Your task to perform on an android device: Clear all items from cart on walmart.com. Add "usb-c" to the cart on walmart.com Image 0: 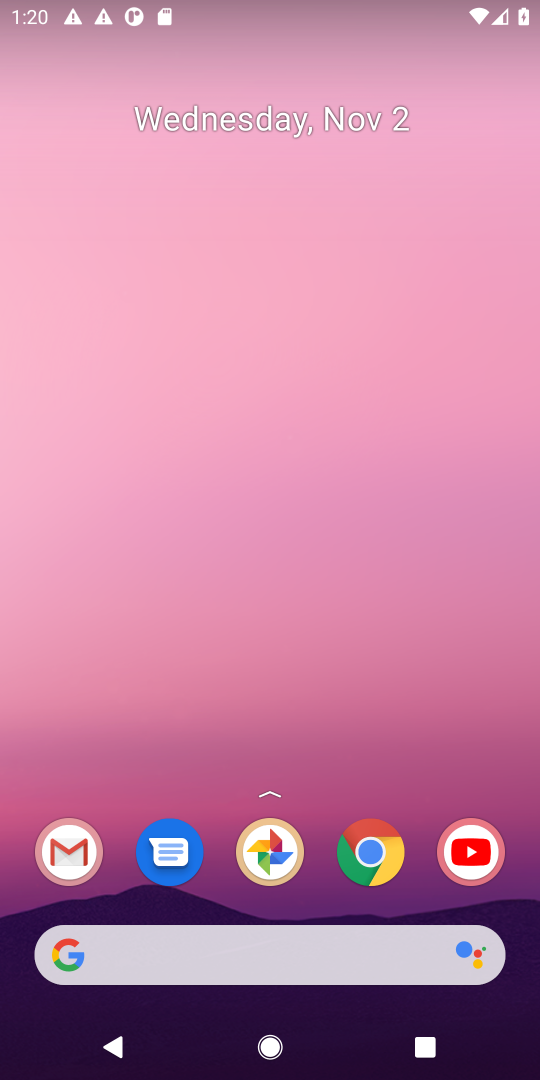
Step 0: click (64, 960)
Your task to perform on an android device: Clear all items from cart on walmart.com. Add "usb-c" to the cart on walmart.com Image 1: 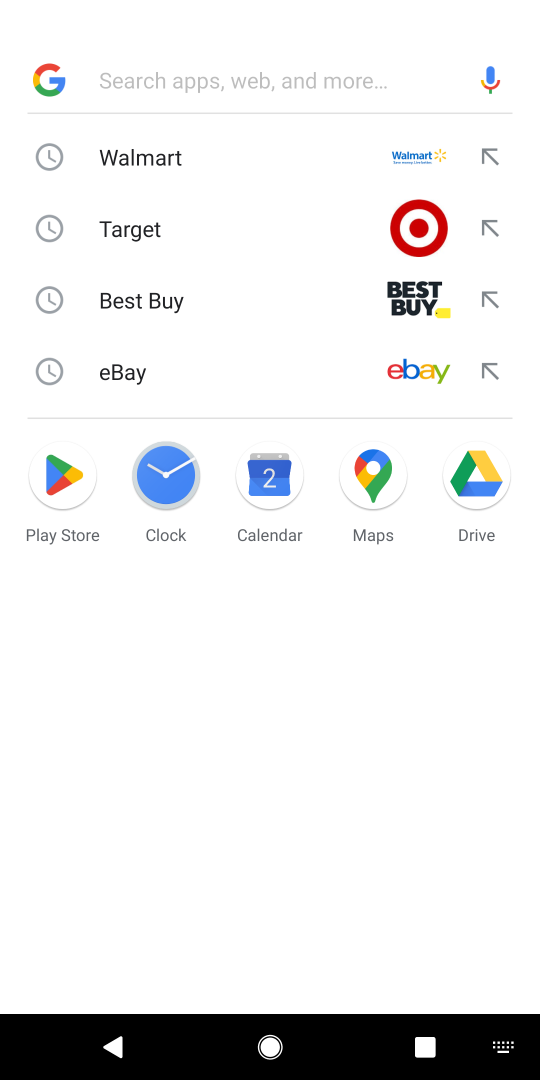
Step 1: click (128, 158)
Your task to perform on an android device: Clear all items from cart on walmart.com. Add "usb-c" to the cart on walmart.com Image 2: 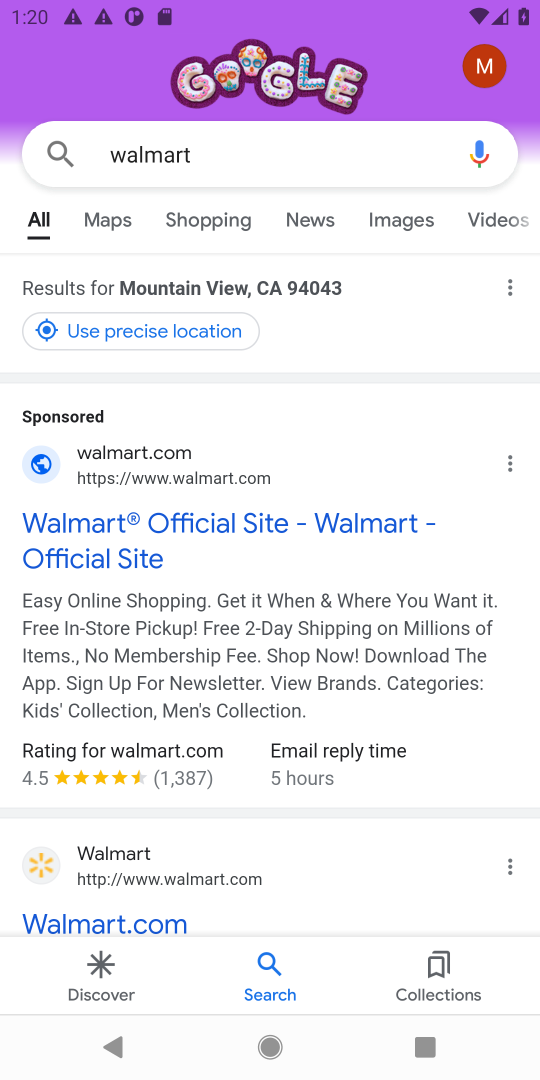
Step 2: click (72, 919)
Your task to perform on an android device: Clear all items from cart on walmart.com. Add "usb-c" to the cart on walmart.com Image 3: 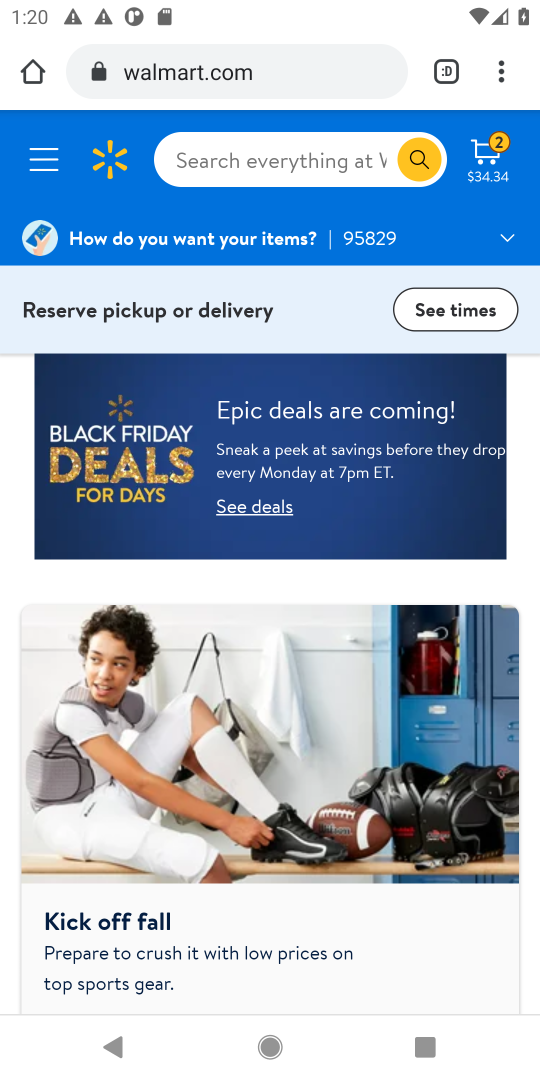
Step 3: click (492, 152)
Your task to perform on an android device: Clear all items from cart on walmart.com. Add "usb-c" to the cart on walmart.com Image 4: 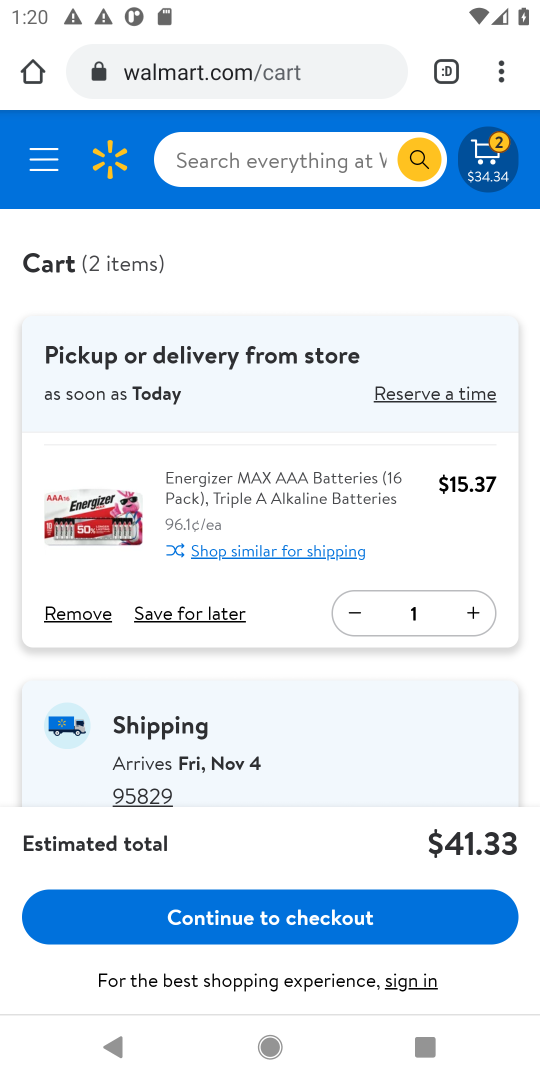
Step 4: click (205, 615)
Your task to perform on an android device: Clear all items from cart on walmart.com. Add "usb-c" to the cart on walmart.com Image 5: 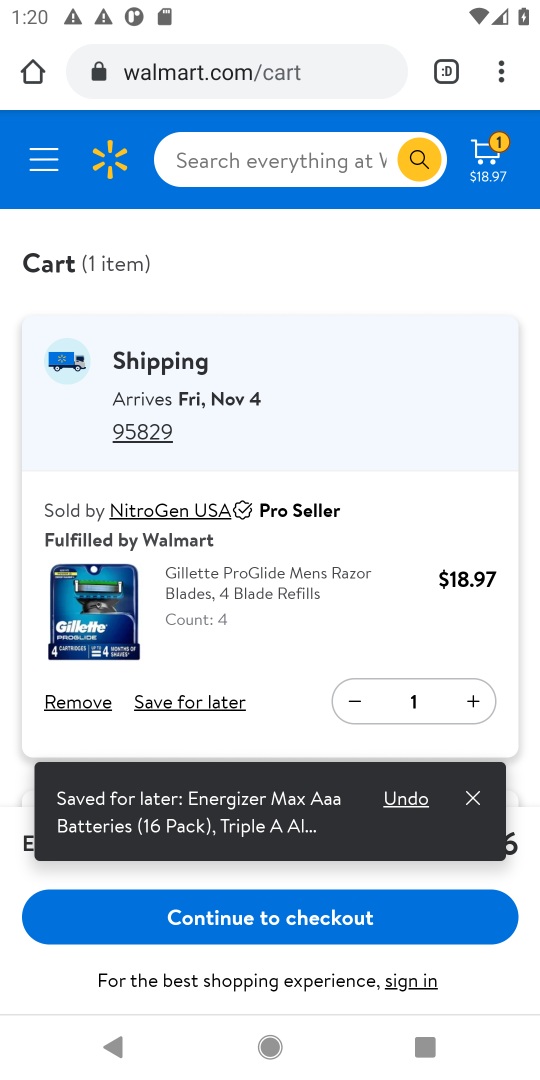
Step 5: click (186, 709)
Your task to perform on an android device: Clear all items from cart on walmart.com. Add "usb-c" to the cart on walmart.com Image 6: 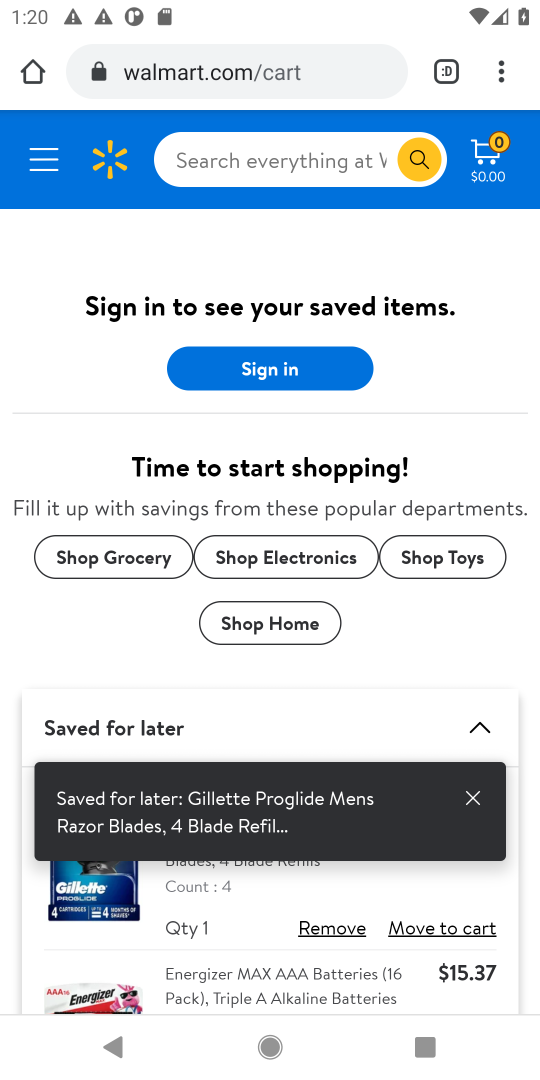
Step 6: click (309, 154)
Your task to perform on an android device: Clear all items from cart on walmart.com. Add "usb-c" to the cart on walmart.com Image 7: 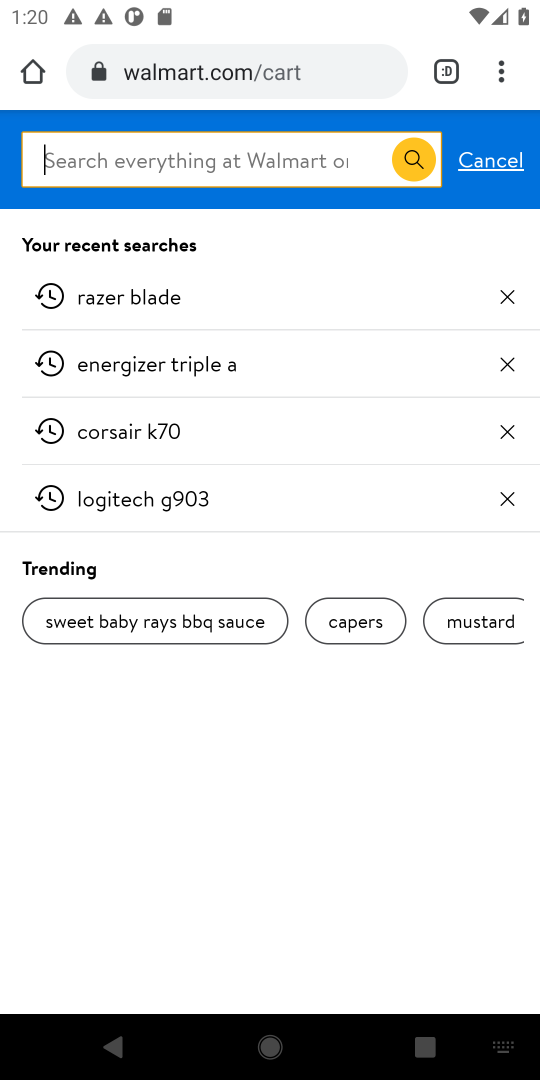
Step 7: type "usb-c"
Your task to perform on an android device: Clear all items from cart on walmart.com. Add "usb-c" to the cart on walmart.com Image 8: 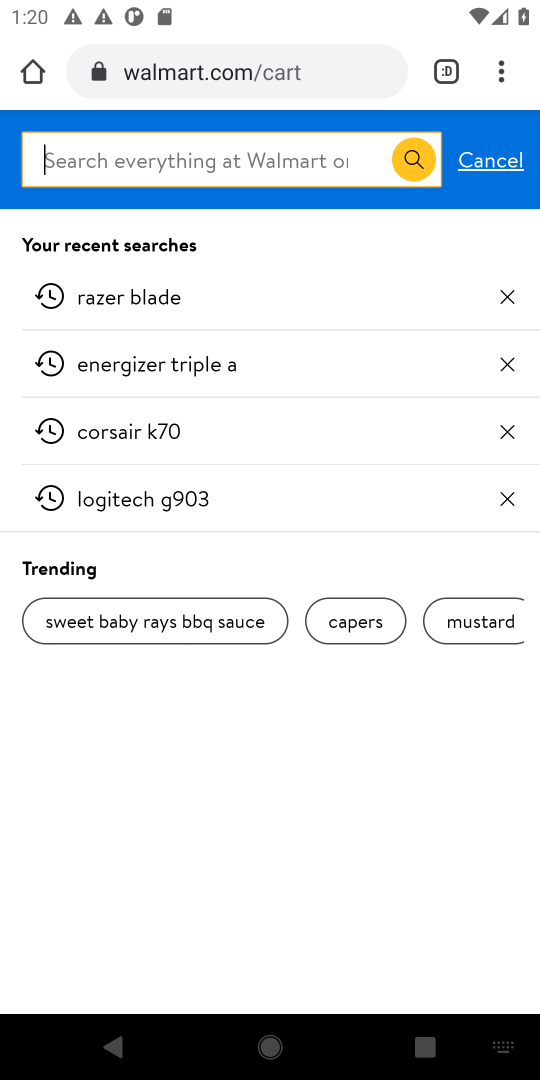
Step 8: click (148, 172)
Your task to perform on an android device: Clear all items from cart on walmart.com. Add "usb-c" to the cart on walmart.com Image 9: 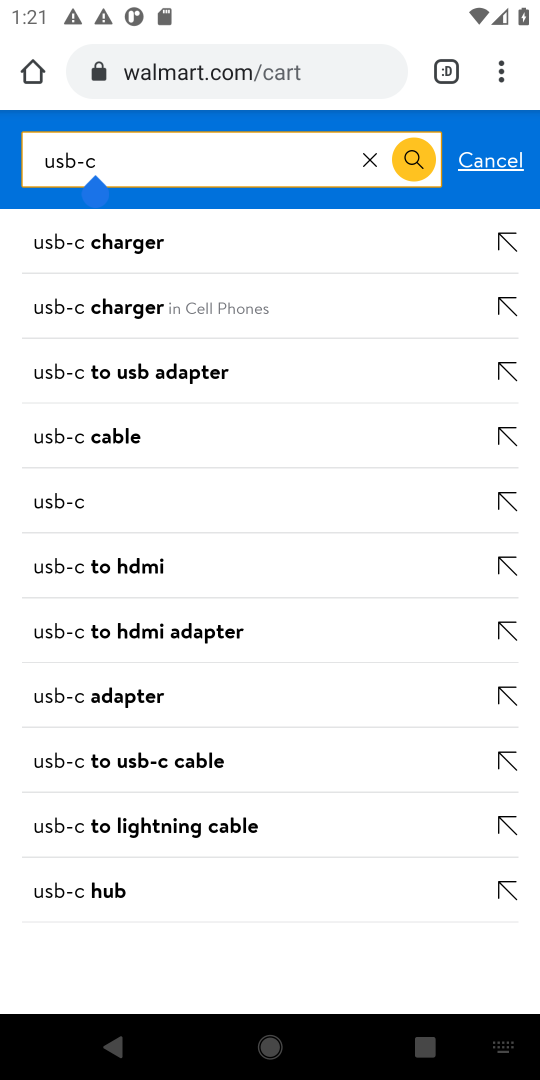
Step 9: press enter
Your task to perform on an android device: Clear all items from cart on walmart.com. Add "usb-c" to the cart on walmart.com Image 10: 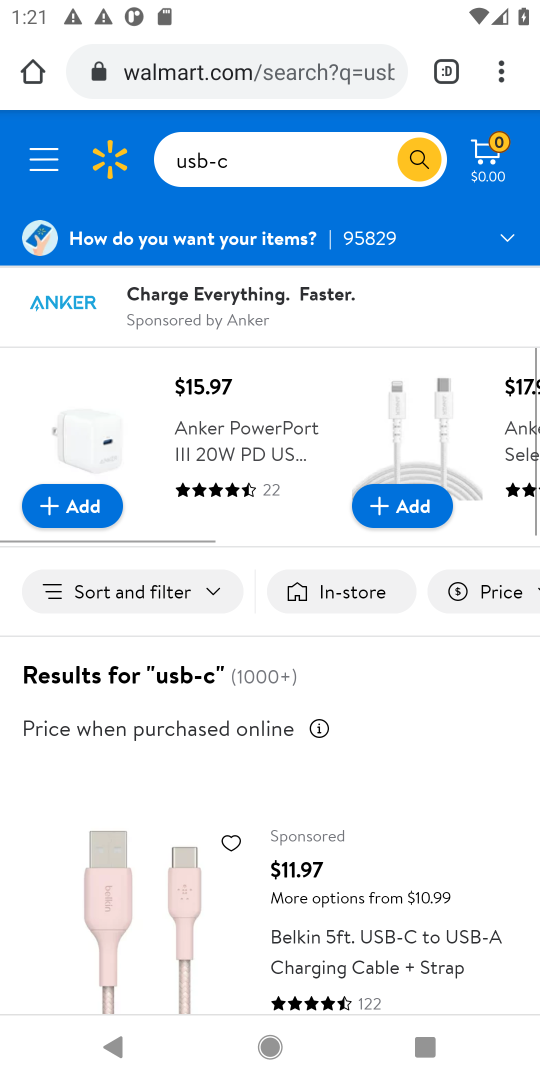
Step 10: click (423, 934)
Your task to perform on an android device: Clear all items from cart on walmart.com. Add "usb-c" to the cart on walmart.com Image 11: 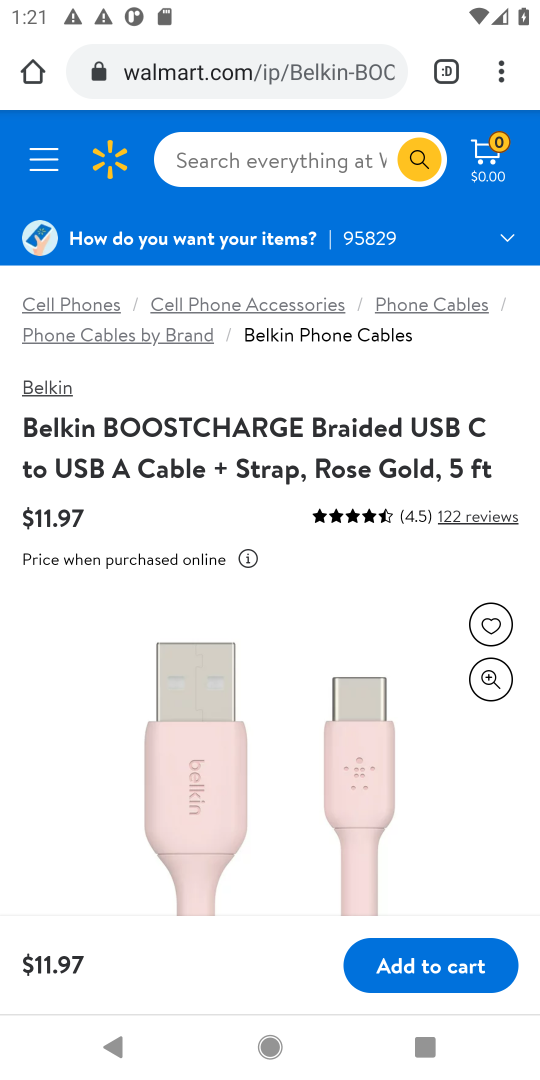
Step 11: click (442, 966)
Your task to perform on an android device: Clear all items from cart on walmart.com. Add "usb-c" to the cart on walmart.com Image 12: 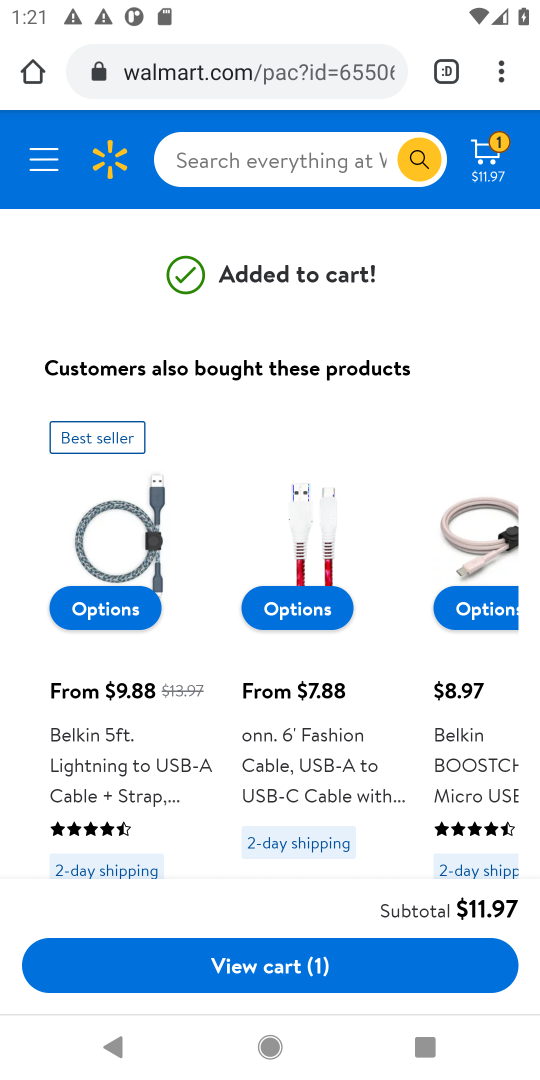
Step 12: task complete